Your task to perform on an android device: allow notifications from all sites in the chrome app Image 0: 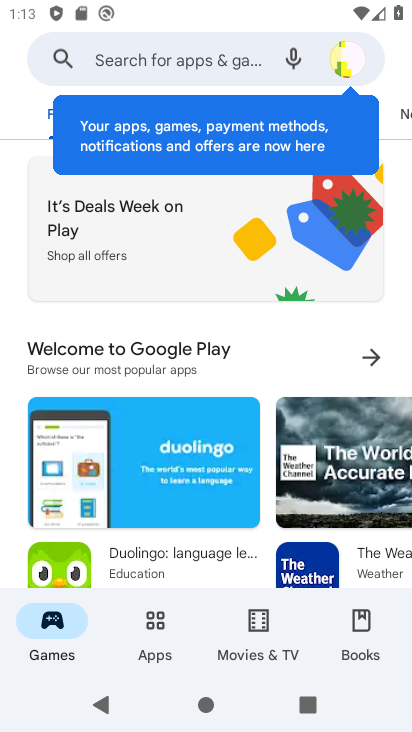
Step 0: press home button
Your task to perform on an android device: allow notifications from all sites in the chrome app Image 1: 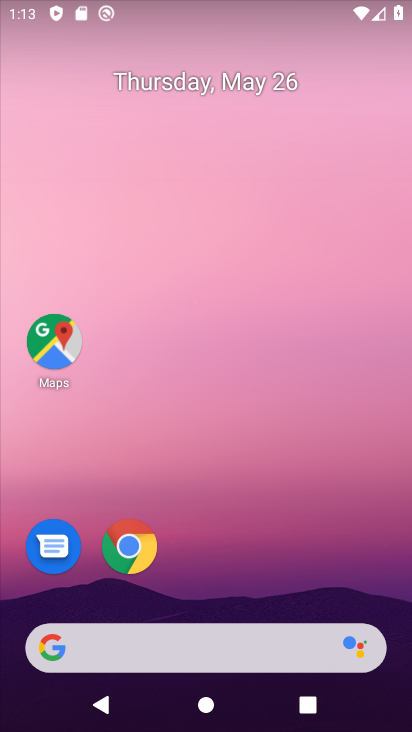
Step 1: click (131, 546)
Your task to perform on an android device: allow notifications from all sites in the chrome app Image 2: 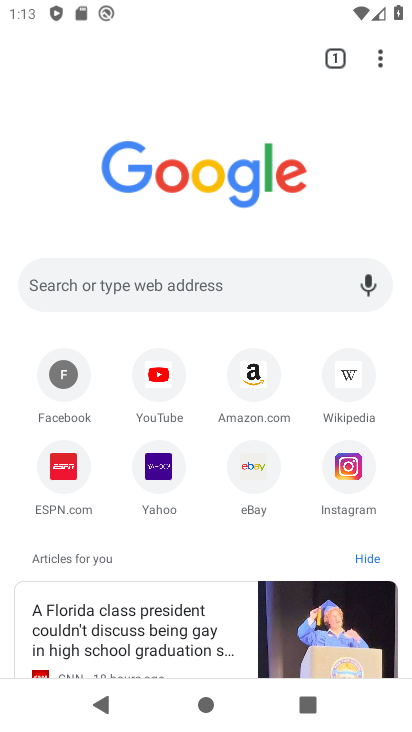
Step 2: click (373, 54)
Your task to perform on an android device: allow notifications from all sites in the chrome app Image 3: 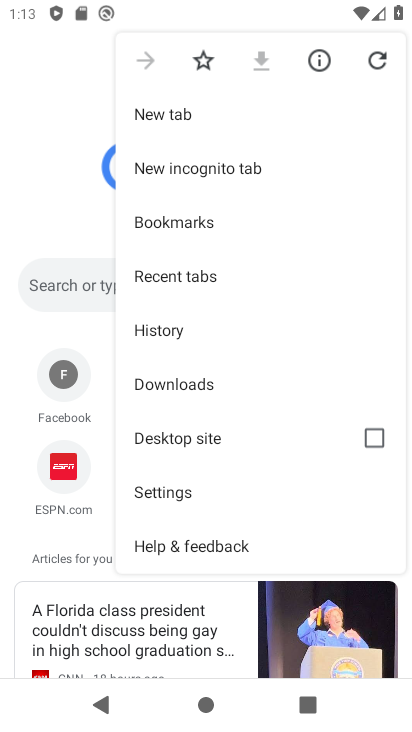
Step 3: click (220, 489)
Your task to perform on an android device: allow notifications from all sites in the chrome app Image 4: 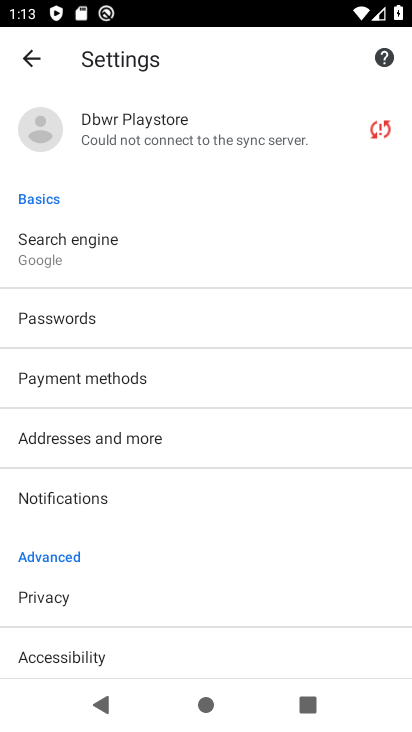
Step 4: drag from (149, 596) to (159, 280)
Your task to perform on an android device: allow notifications from all sites in the chrome app Image 5: 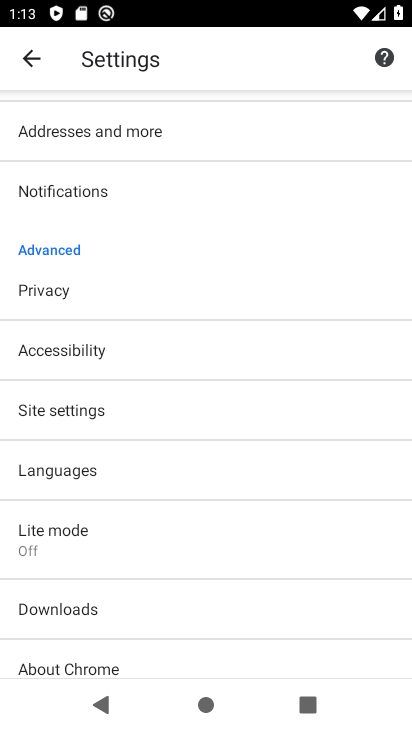
Step 5: click (90, 399)
Your task to perform on an android device: allow notifications from all sites in the chrome app Image 6: 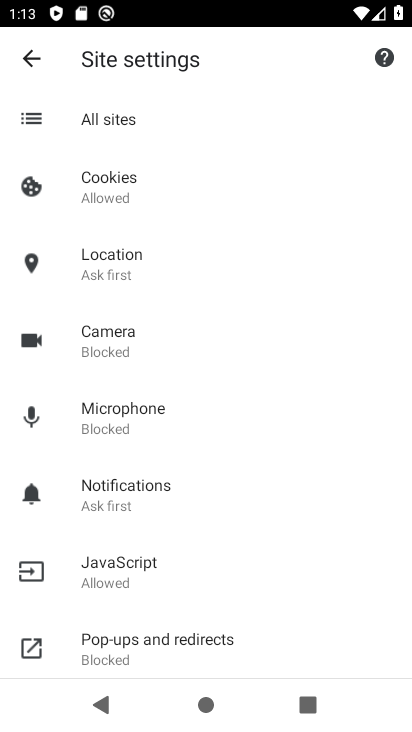
Step 6: click (120, 508)
Your task to perform on an android device: allow notifications from all sites in the chrome app Image 7: 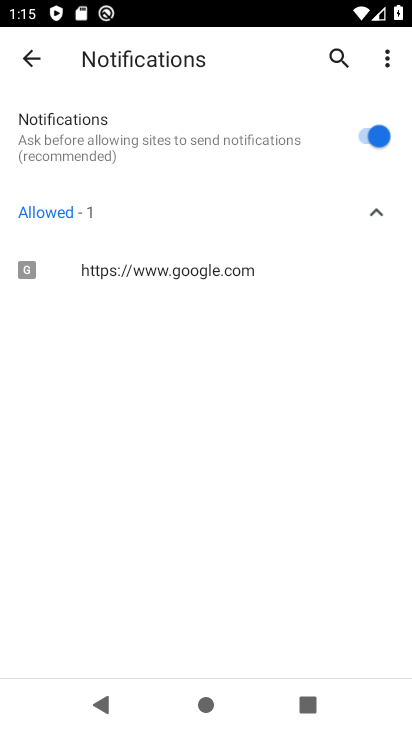
Step 7: task complete